Your task to perform on an android device: toggle airplane mode Image 0: 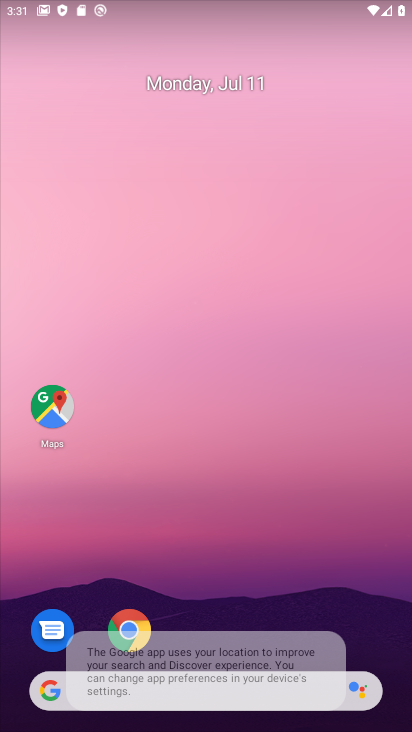
Step 0: drag from (296, 548) to (261, 119)
Your task to perform on an android device: toggle airplane mode Image 1: 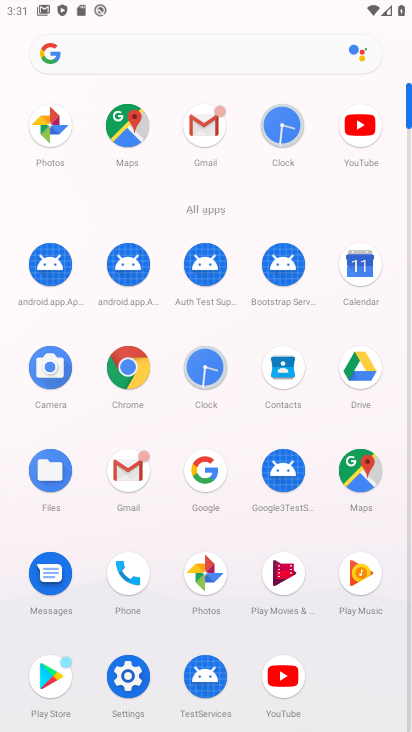
Step 1: click (109, 671)
Your task to perform on an android device: toggle airplane mode Image 2: 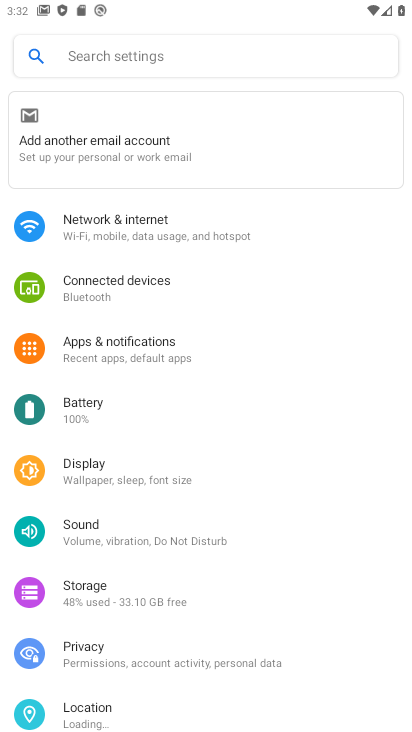
Step 2: click (159, 225)
Your task to perform on an android device: toggle airplane mode Image 3: 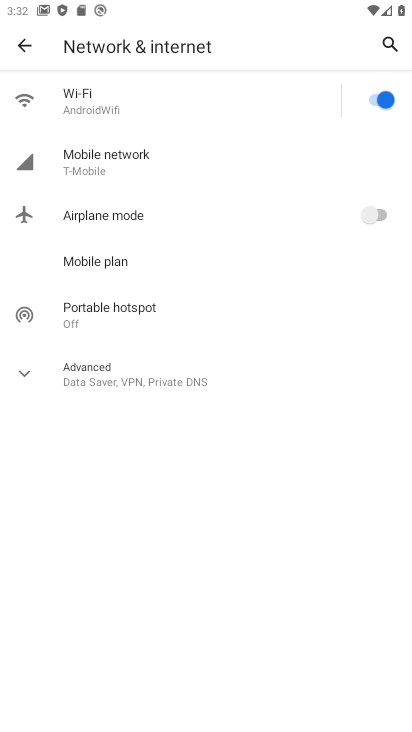
Step 3: click (154, 210)
Your task to perform on an android device: toggle airplane mode Image 4: 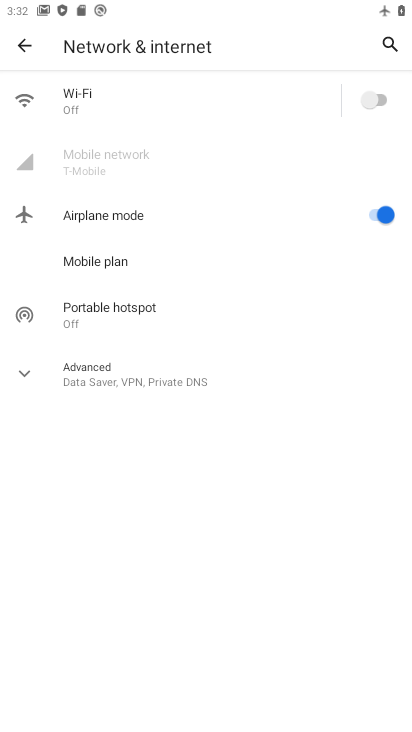
Step 4: task complete